Your task to perform on an android device: Open accessibility settings Image 0: 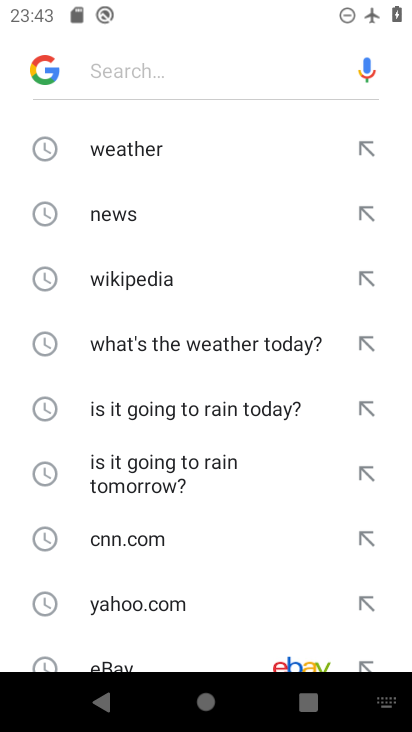
Step 0: press home button
Your task to perform on an android device: Open accessibility settings Image 1: 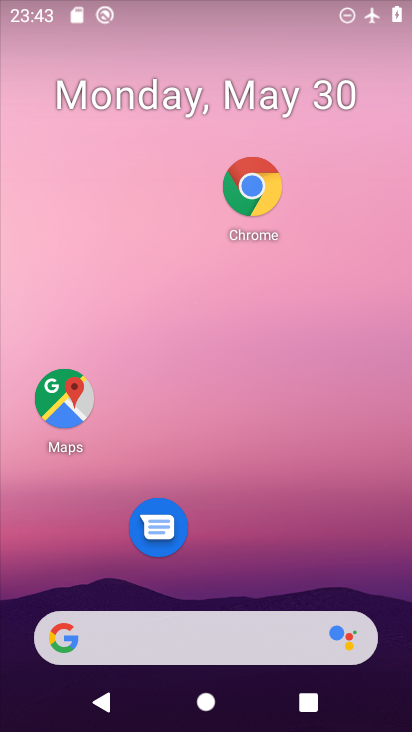
Step 1: drag from (248, 532) to (218, 263)
Your task to perform on an android device: Open accessibility settings Image 2: 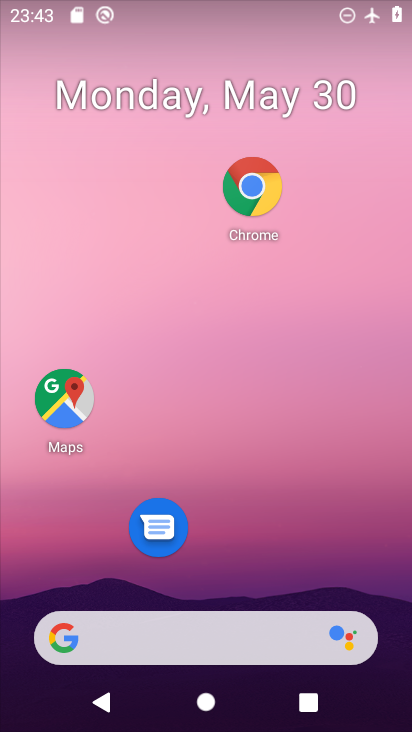
Step 2: drag from (249, 528) to (236, 292)
Your task to perform on an android device: Open accessibility settings Image 3: 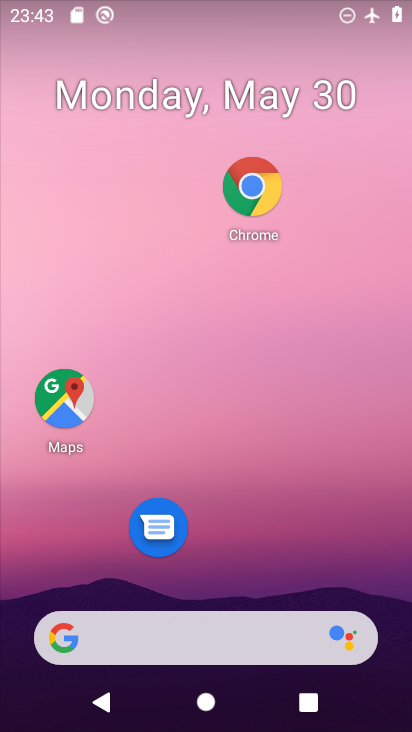
Step 3: drag from (209, 561) to (216, 223)
Your task to perform on an android device: Open accessibility settings Image 4: 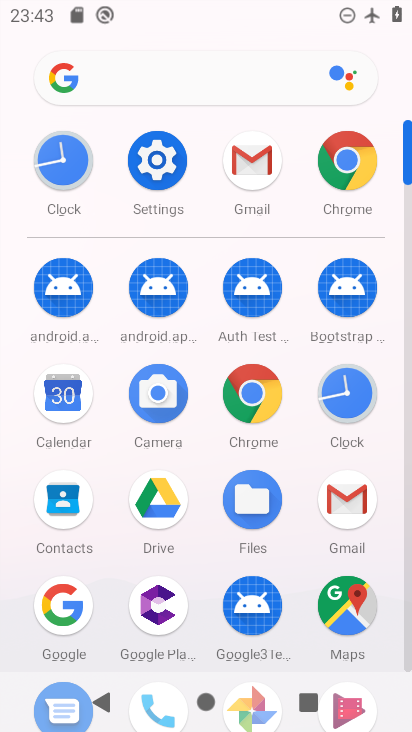
Step 4: click (163, 155)
Your task to perform on an android device: Open accessibility settings Image 5: 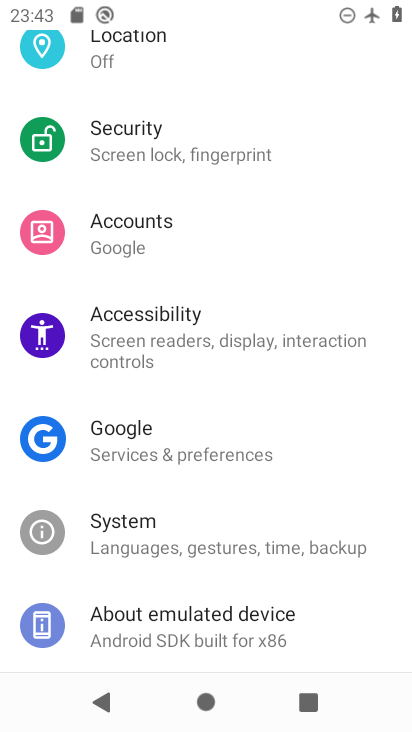
Step 5: click (188, 337)
Your task to perform on an android device: Open accessibility settings Image 6: 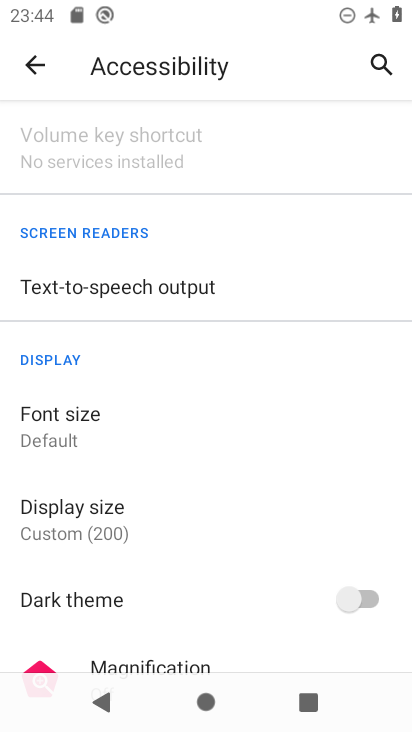
Step 6: task complete